Your task to perform on an android device: Search for Mexican restaurants on Maps Image 0: 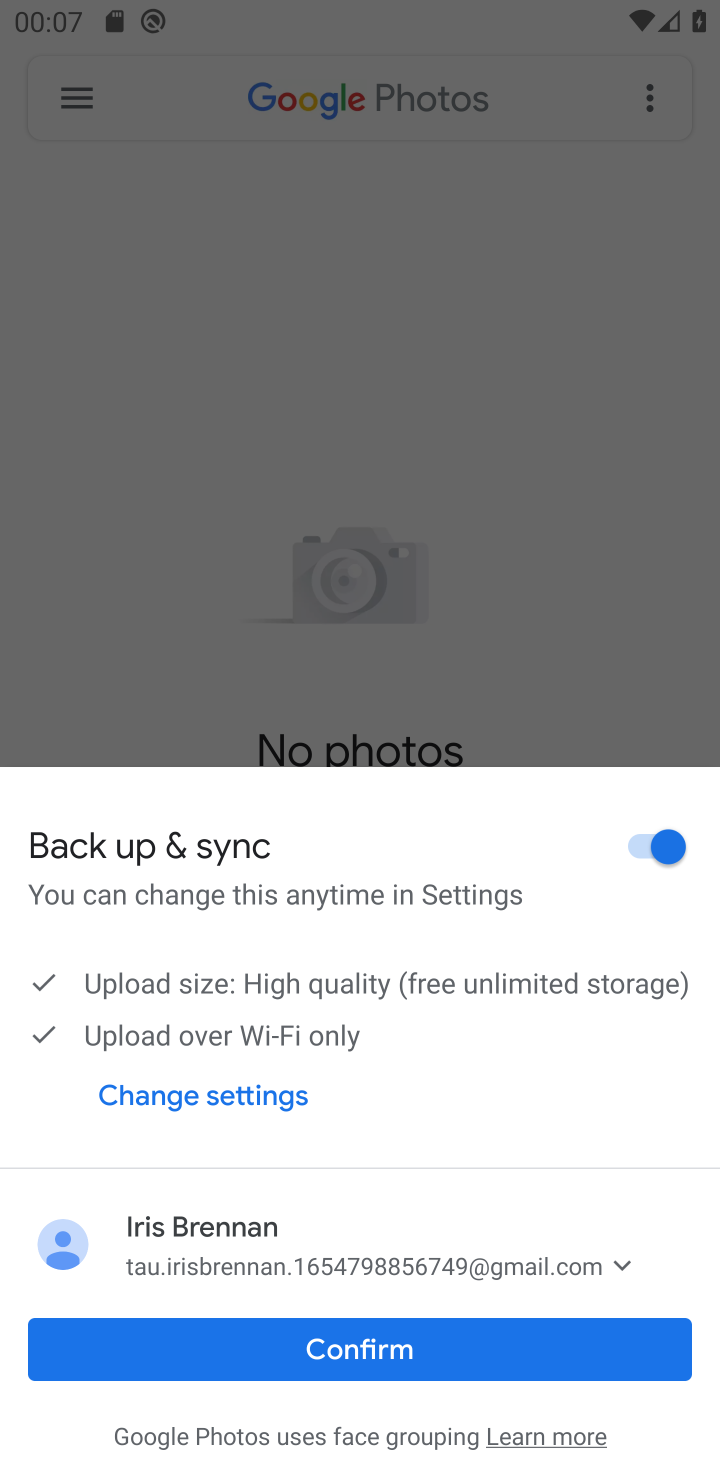
Step 0: press home button
Your task to perform on an android device: Search for Mexican restaurants on Maps Image 1: 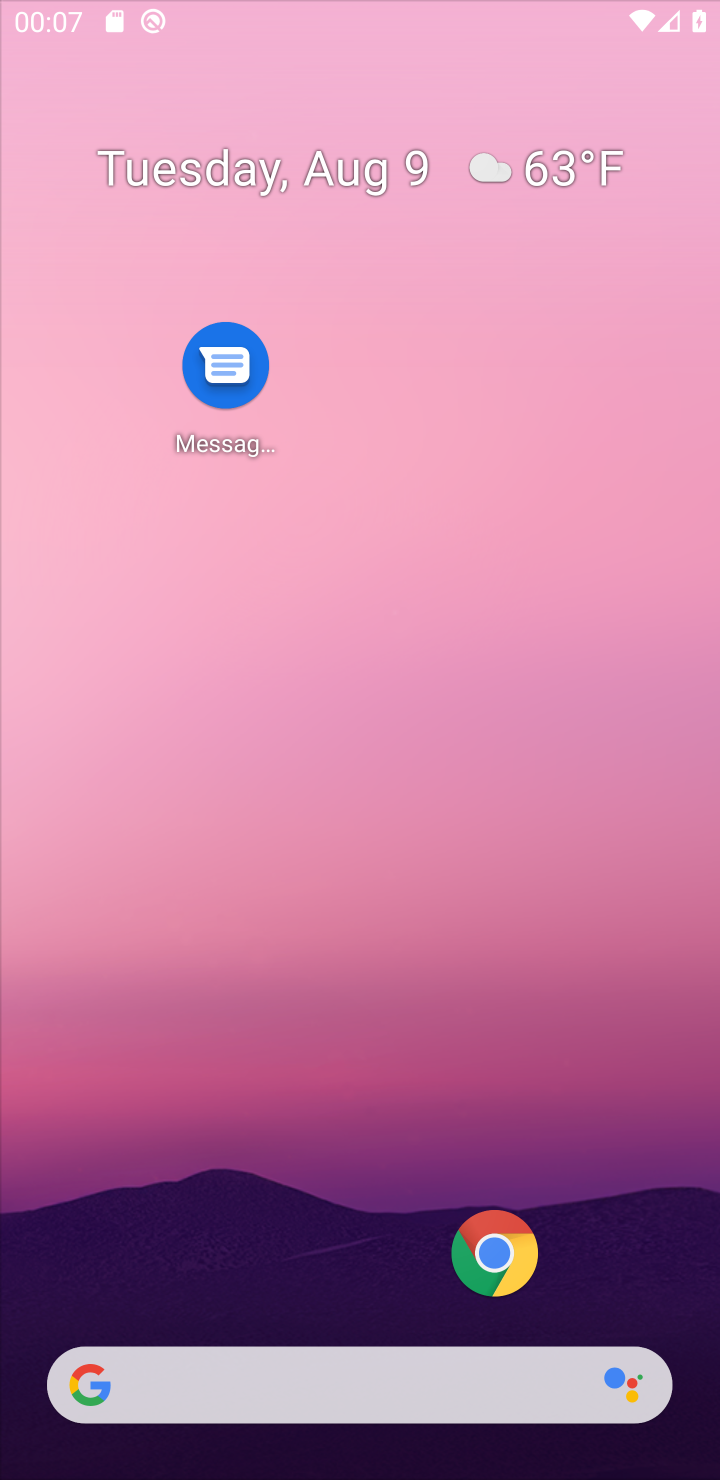
Step 1: drag from (151, 1320) to (154, 182)
Your task to perform on an android device: Search for Mexican restaurants on Maps Image 2: 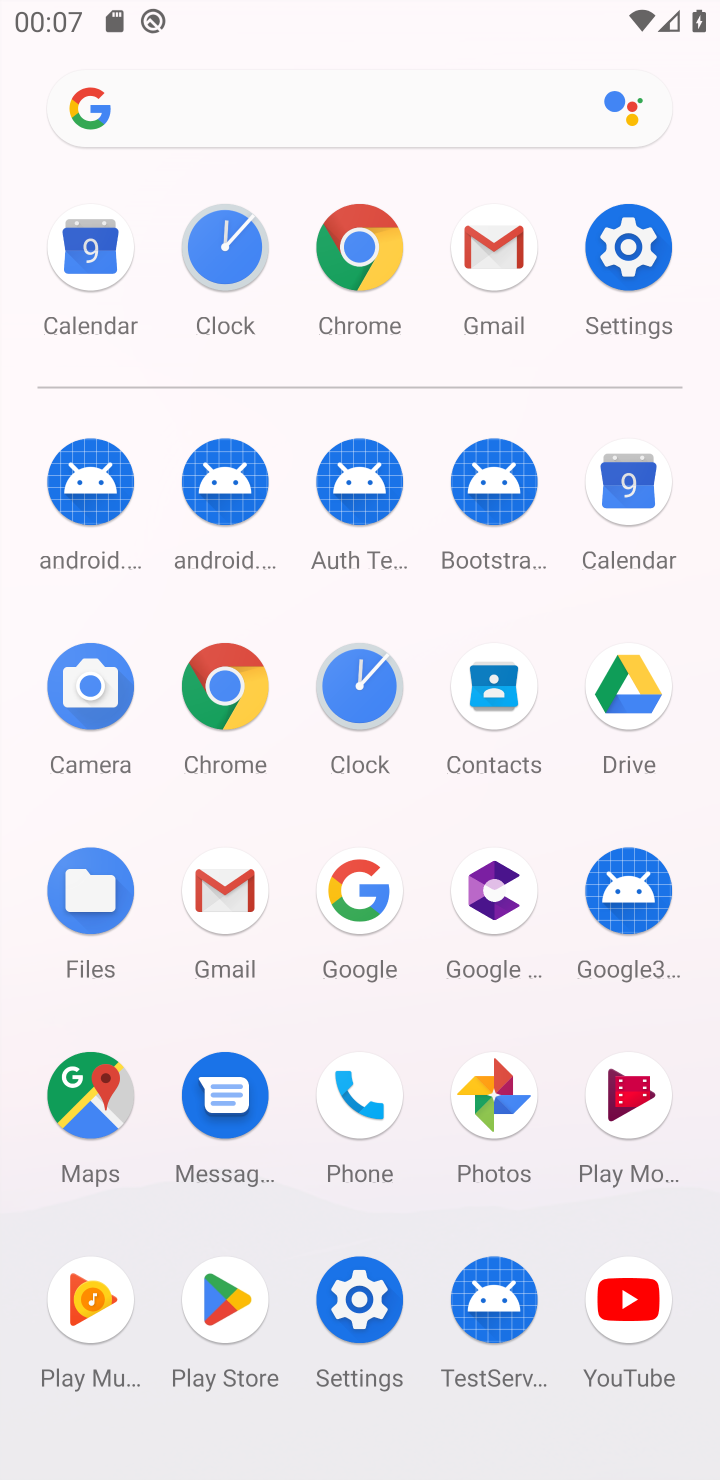
Step 2: click (91, 1109)
Your task to perform on an android device: Search for Mexican restaurants on Maps Image 3: 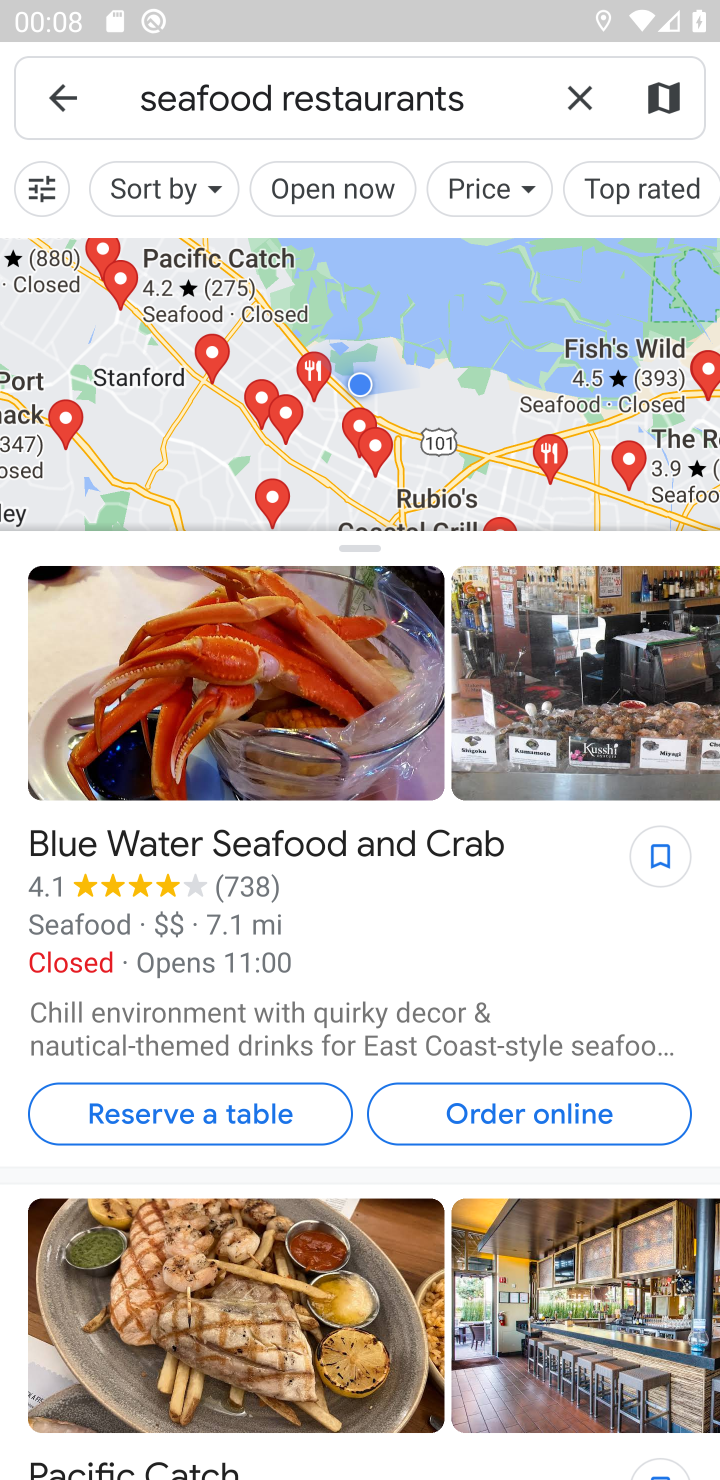
Step 3: click (567, 98)
Your task to perform on an android device: Search for Mexican restaurants on Maps Image 4: 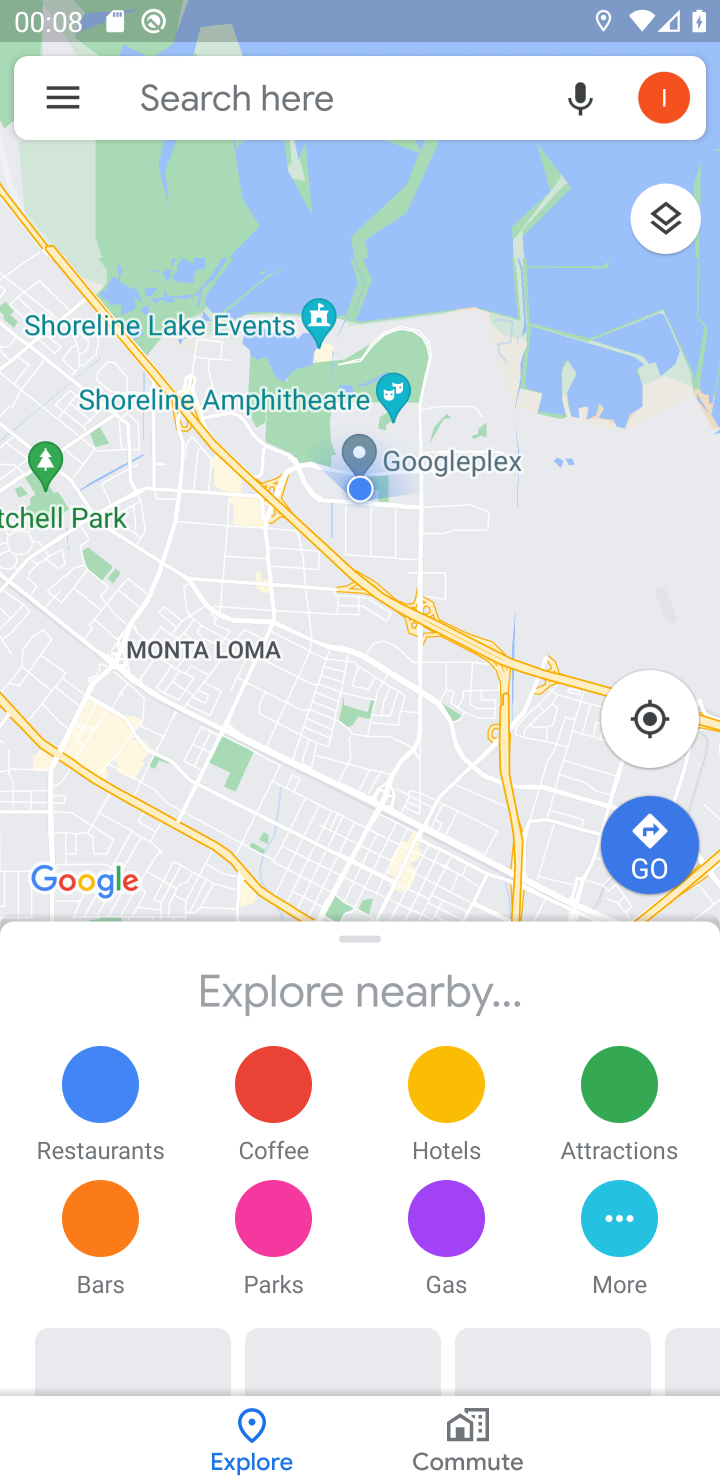
Step 4: click (238, 93)
Your task to perform on an android device: Search for Mexican restaurants on Maps Image 5: 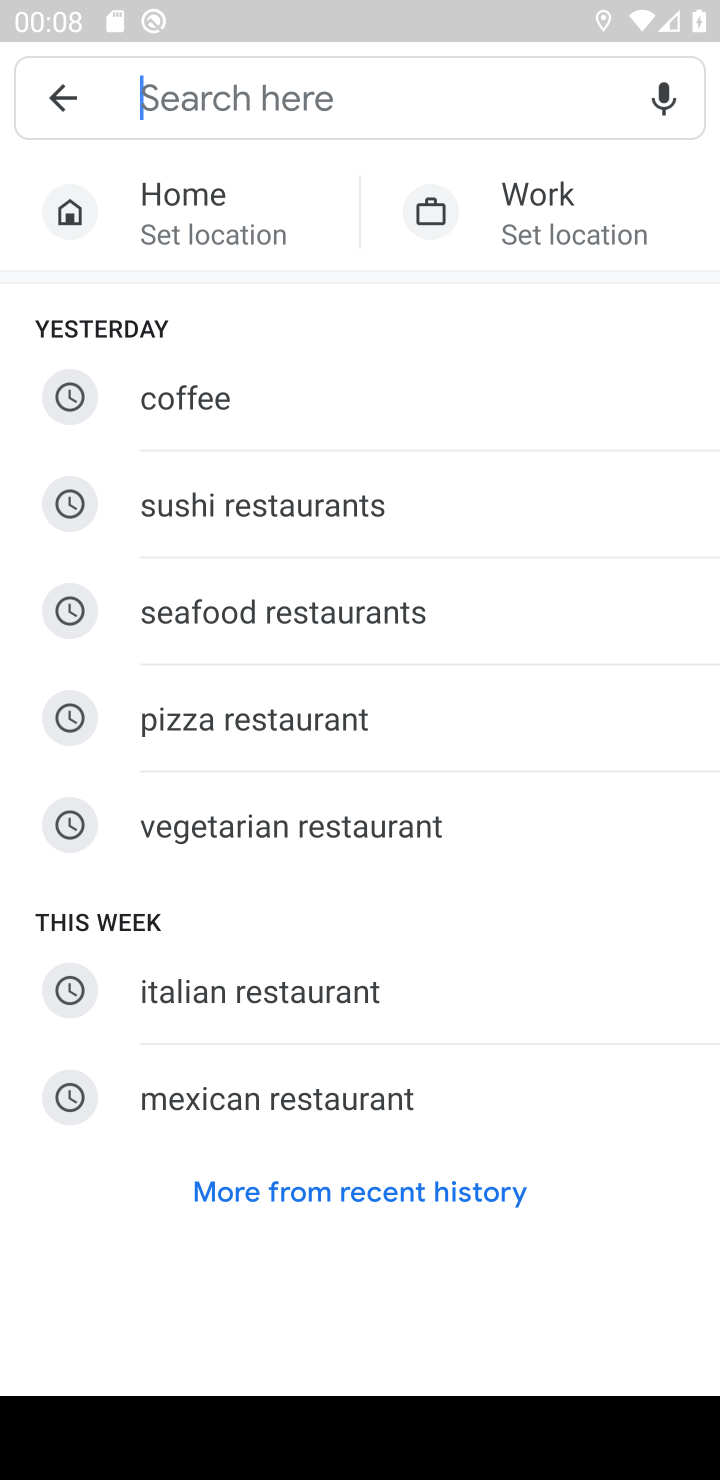
Step 5: click (175, 1084)
Your task to perform on an android device: Search for Mexican restaurants on Maps Image 6: 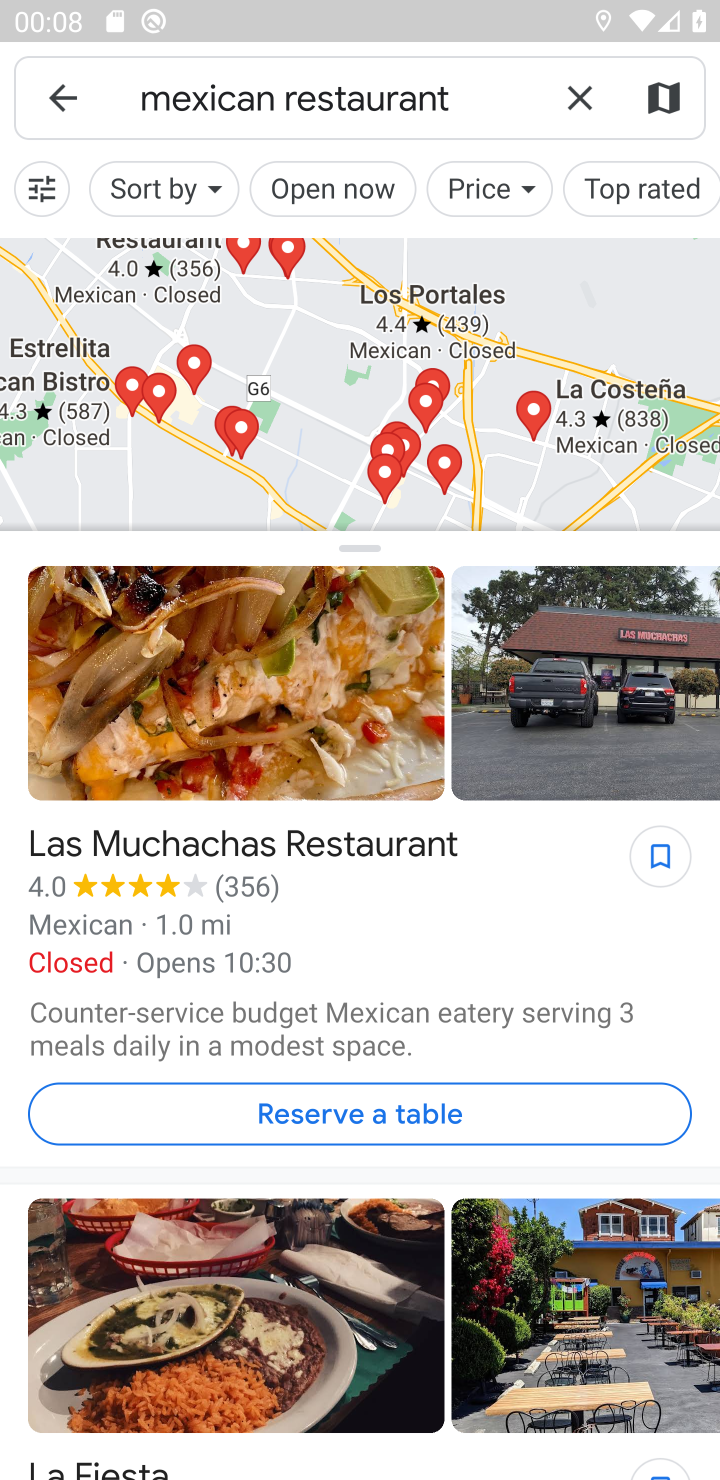
Step 6: task complete